Your task to perform on an android device: Is it going to rain this weekend? Image 0: 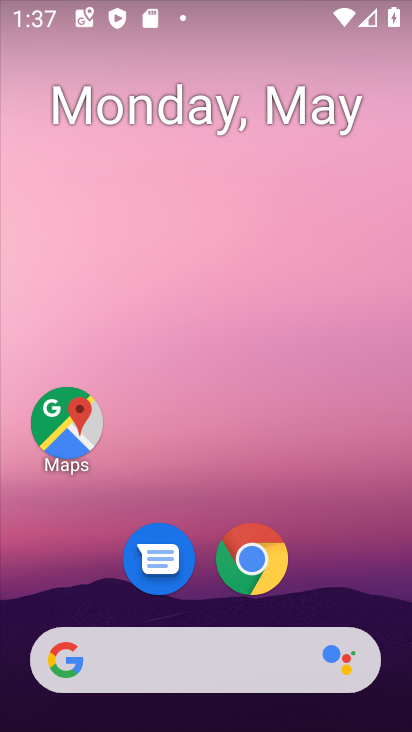
Step 0: click (257, 657)
Your task to perform on an android device: Is it going to rain this weekend? Image 1: 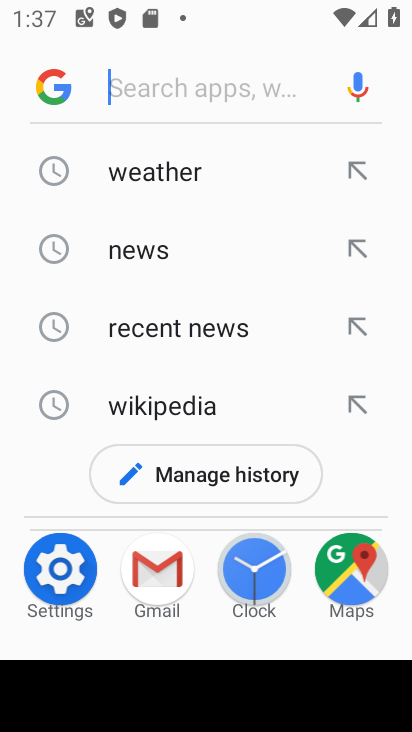
Step 1: type "Is it going to rain this weekend?"
Your task to perform on an android device: Is it going to rain this weekend? Image 2: 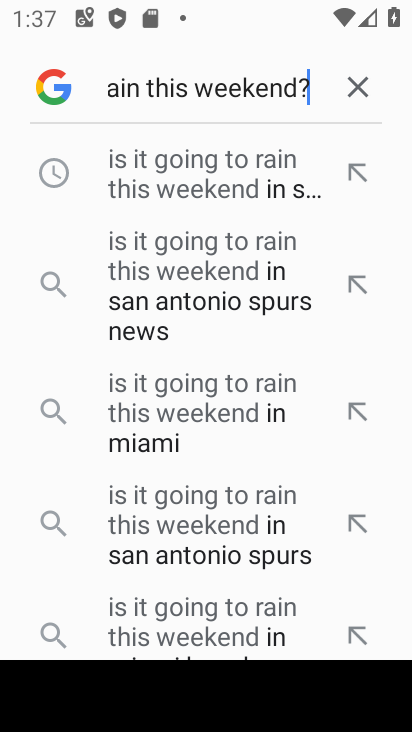
Step 2: click (323, 77)
Your task to perform on an android device: Is it going to rain this weekend? Image 3: 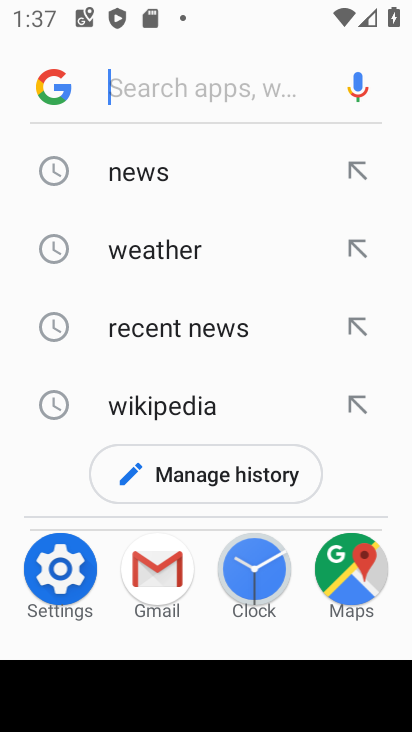
Step 3: type "Is it going to rain this weekend near me"
Your task to perform on an android device: Is it going to rain this weekend? Image 4: 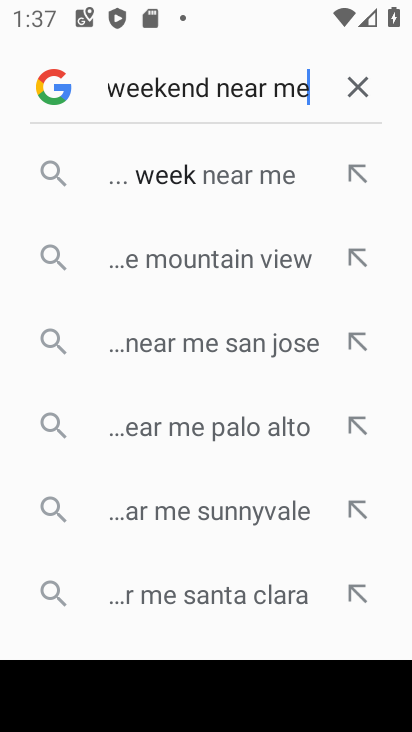
Step 4: click (286, 178)
Your task to perform on an android device: Is it going to rain this weekend? Image 5: 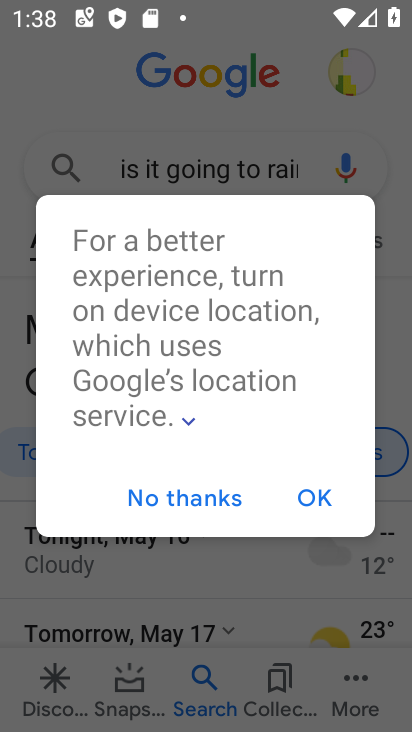
Step 5: click (323, 493)
Your task to perform on an android device: Is it going to rain this weekend? Image 6: 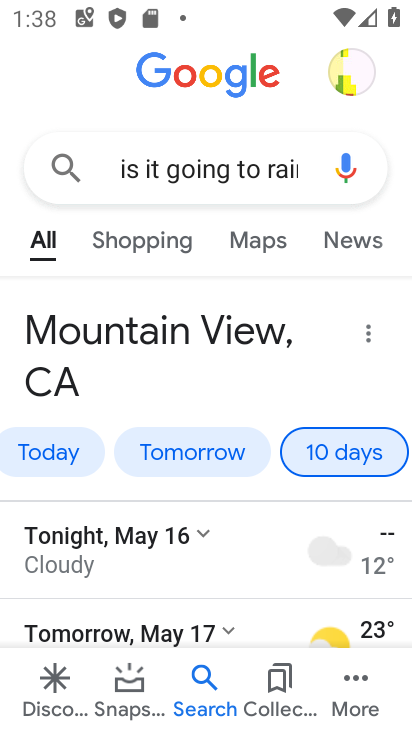
Step 6: task complete